Your task to perform on an android device: Open maps Image 0: 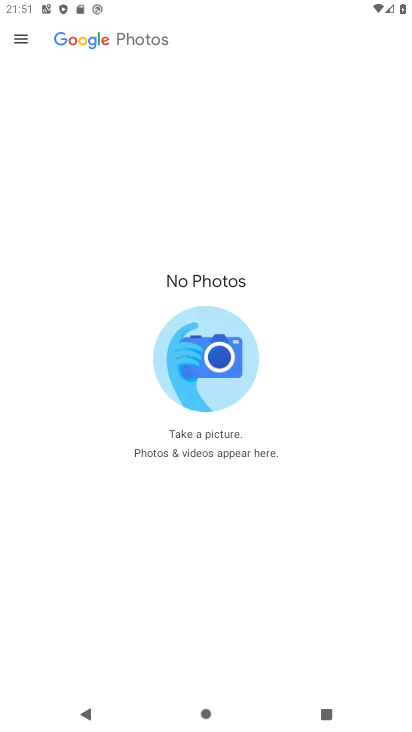
Step 0: press home button
Your task to perform on an android device: Open maps Image 1: 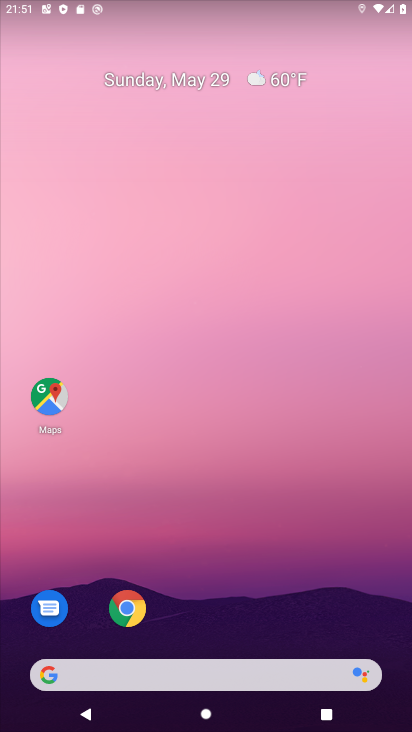
Step 1: drag from (388, 614) to (340, 231)
Your task to perform on an android device: Open maps Image 2: 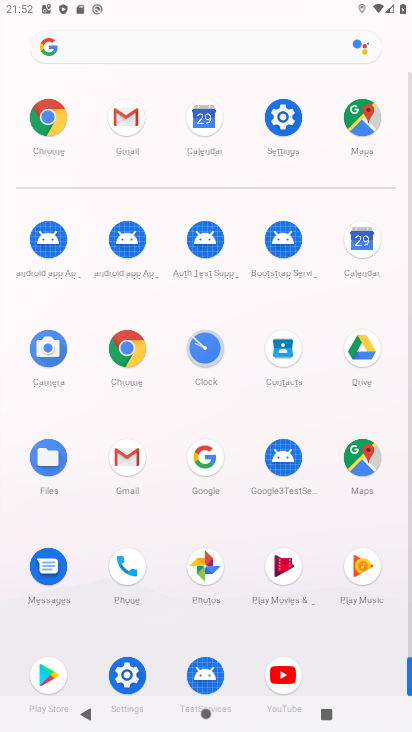
Step 2: click (358, 460)
Your task to perform on an android device: Open maps Image 3: 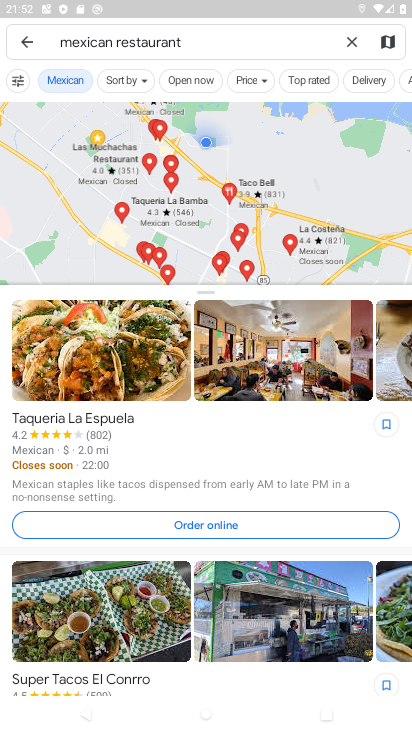
Step 3: press home button
Your task to perform on an android device: Open maps Image 4: 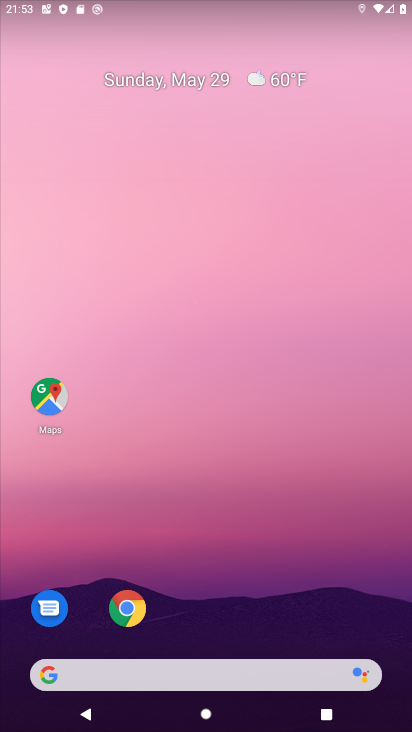
Step 4: drag from (368, 623) to (364, 56)
Your task to perform on an android device: Open maps Image 5: 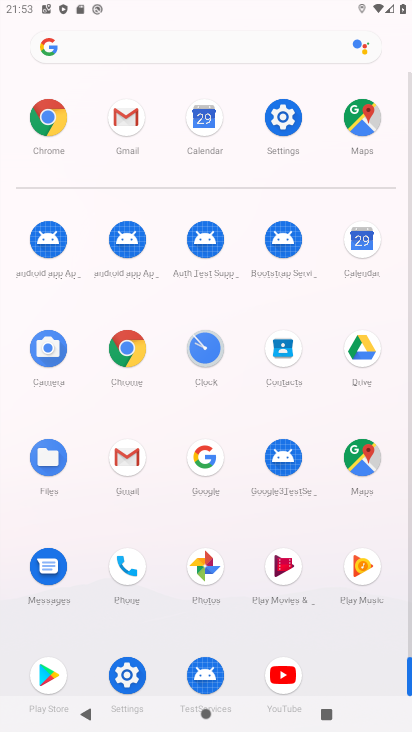
Step 5: click (362, 473)
Your task to perform on an android device: Open maps Image 6: 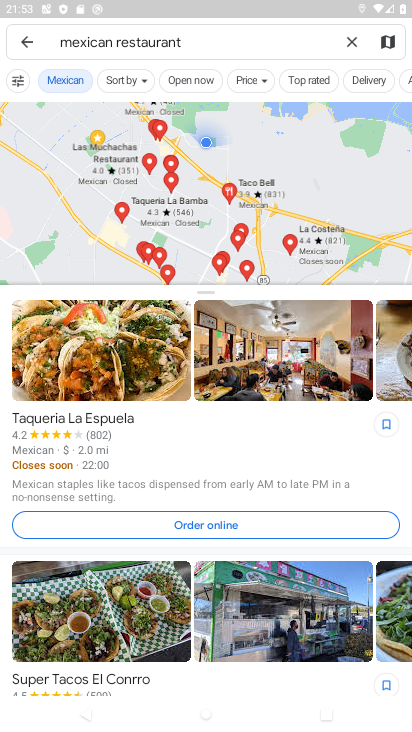
Step 6: task complete